Your task to perform on an android device: Open wifi settings Image 0: 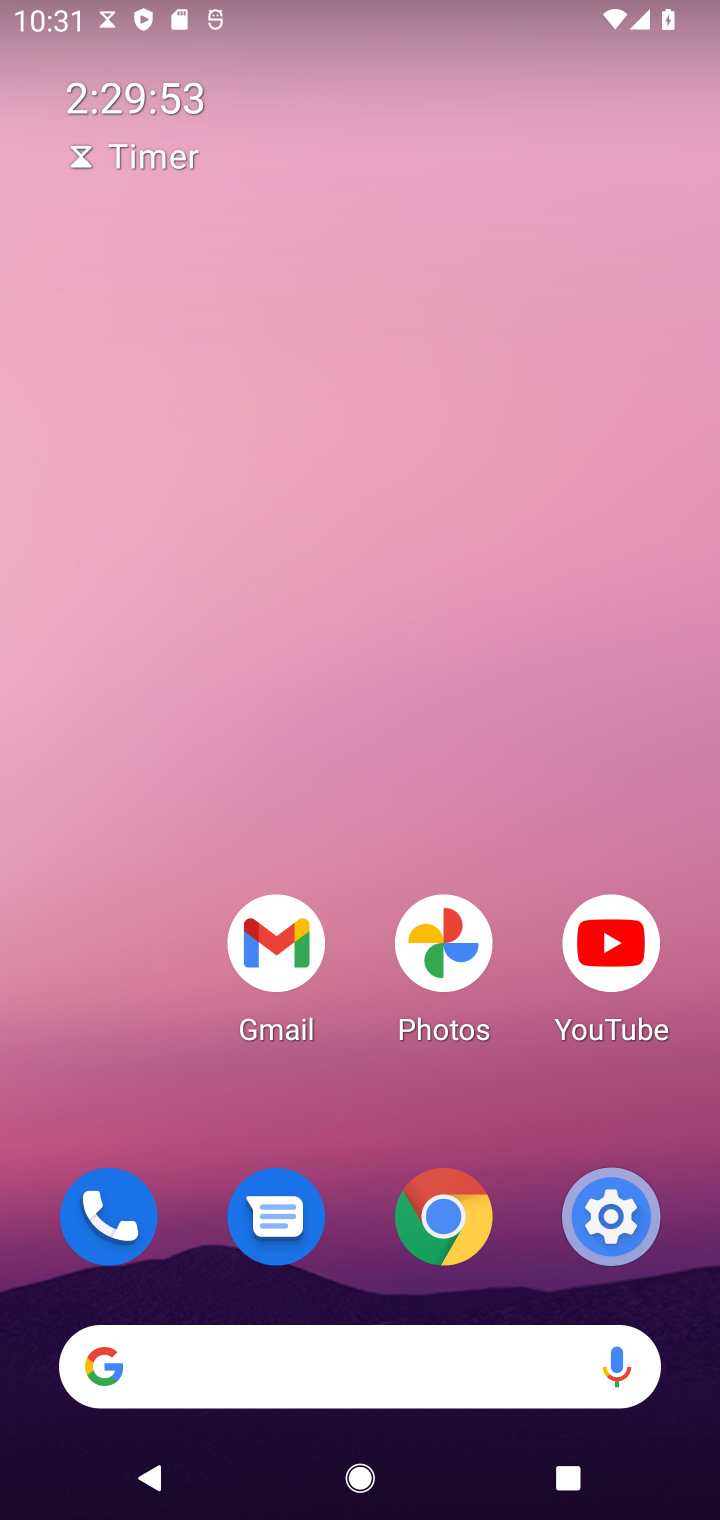
Step 0: drag from (248, 75) to (356, 1047)
Your task to perform on an android device: Open wifi settings Image 1: 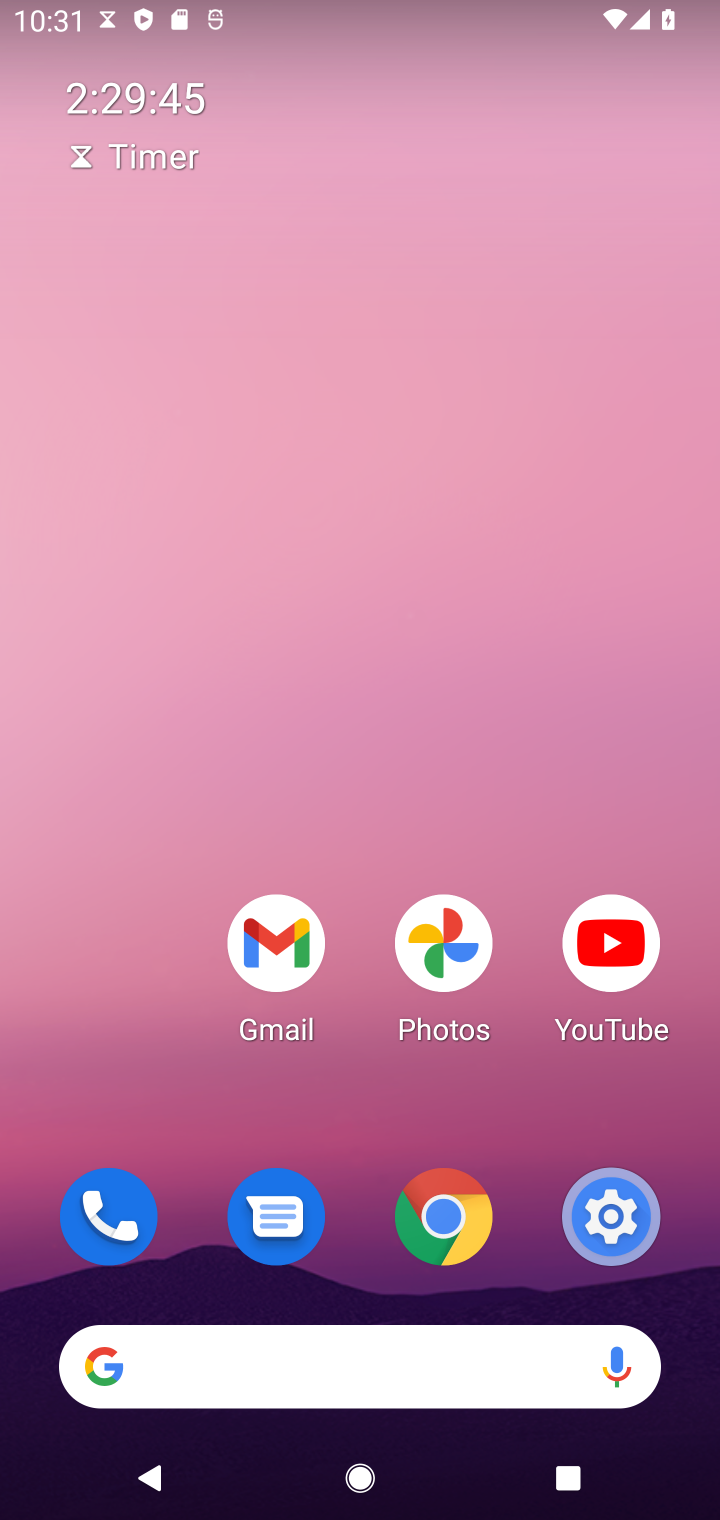
Step 1: drag from (300, 35) to (288, 1182)
Your task to perform on an android device: Open wifi settings Image 2: 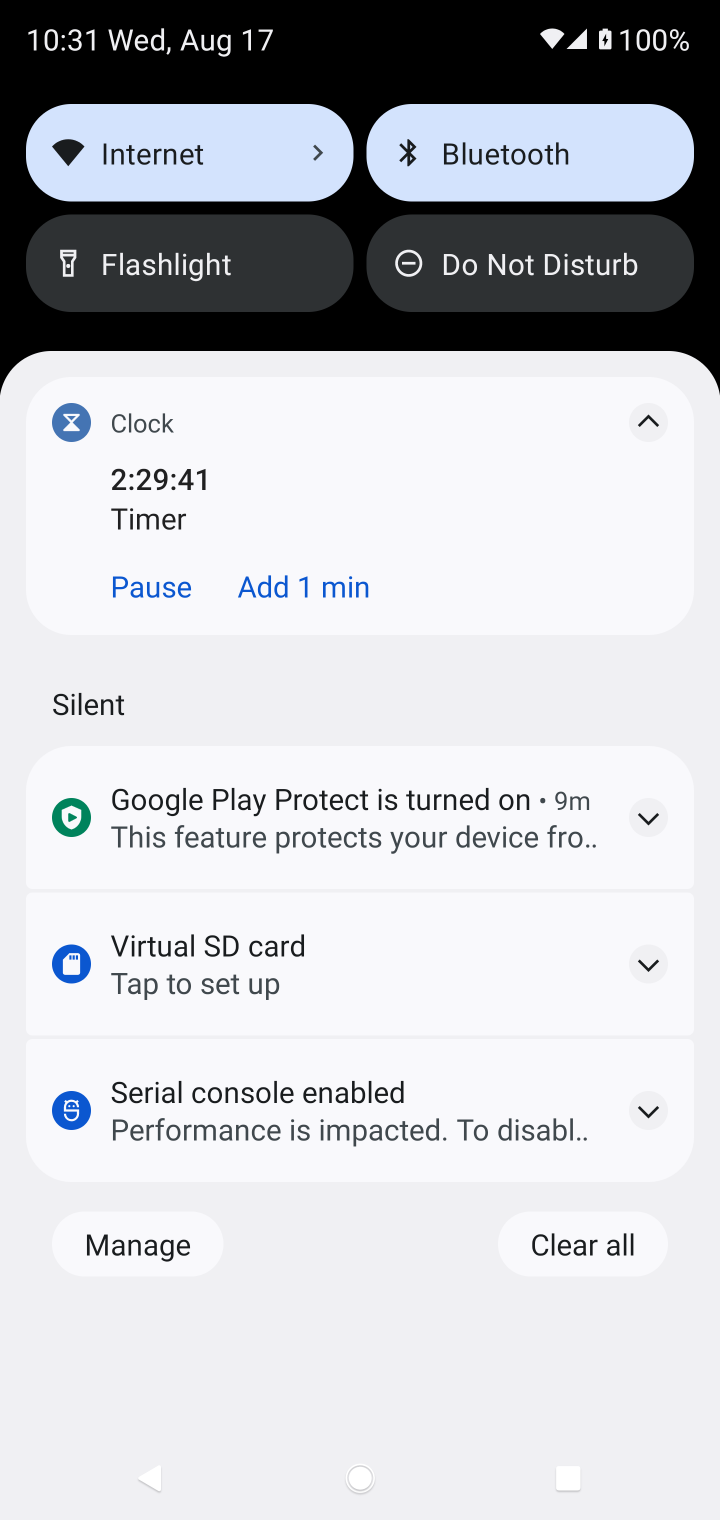
Step 2: click (168, 156)
Your task to perform on an android device: Open wifi settings Image 3: 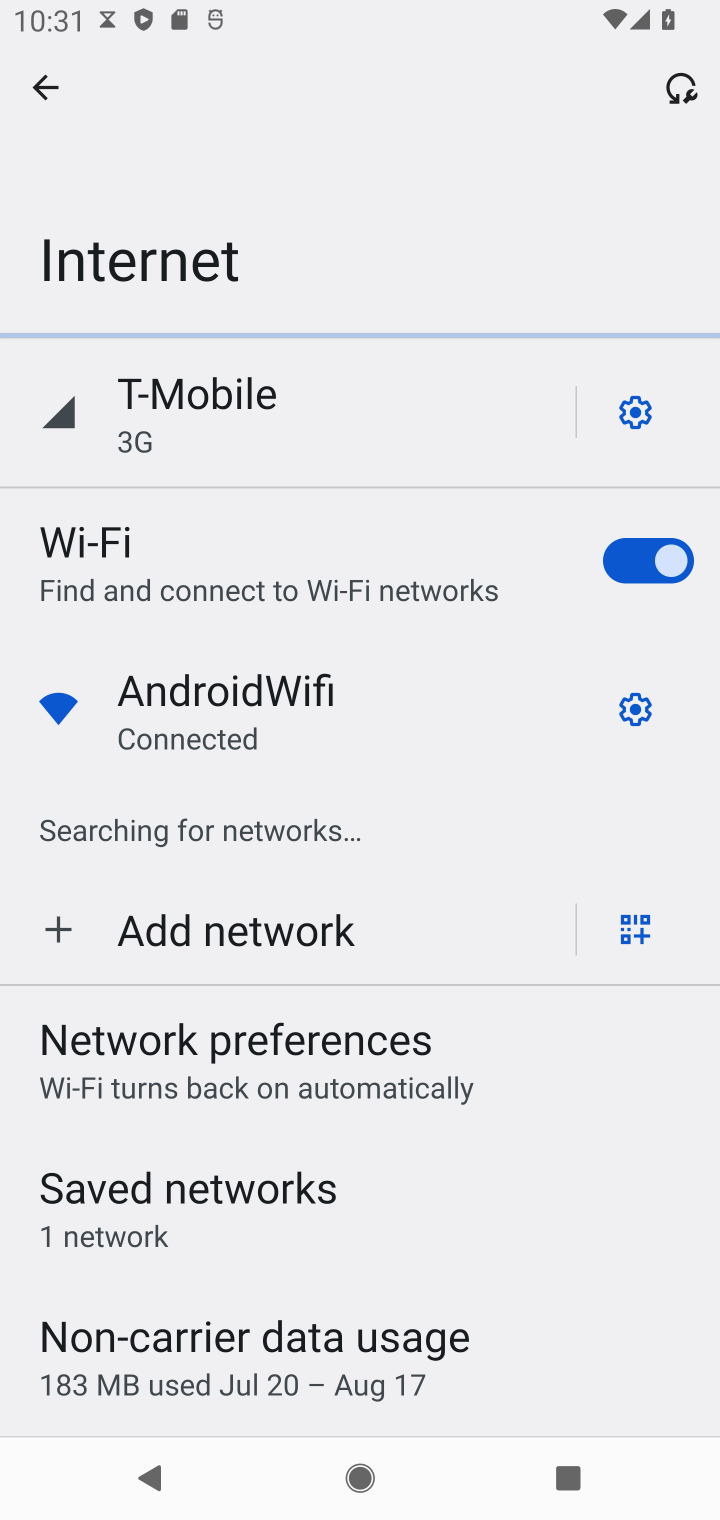
Step 3: task complete